Your task to perform on an android device: Open Chrome and go to settings Image 0: 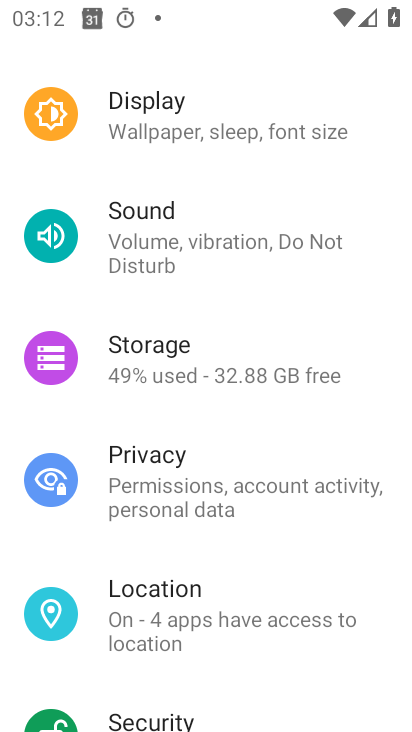
Step 0: press back button
Your task to perform on an android device: Open Chrome and go to settings Image 1: 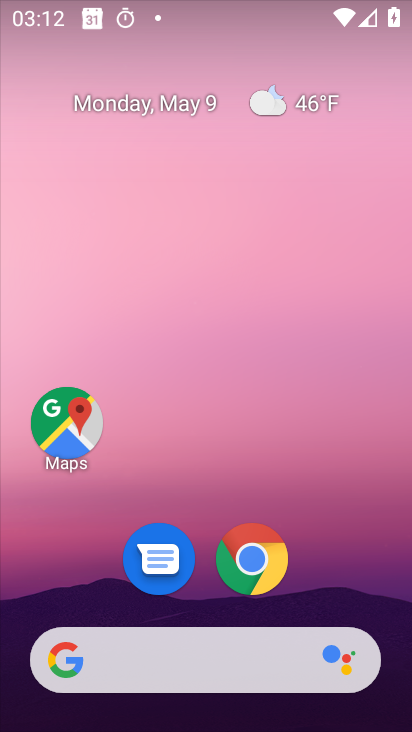
Step 1: click (254, 560)
Your task to perform on an android device: Open Chrome and go to settings Image 2: 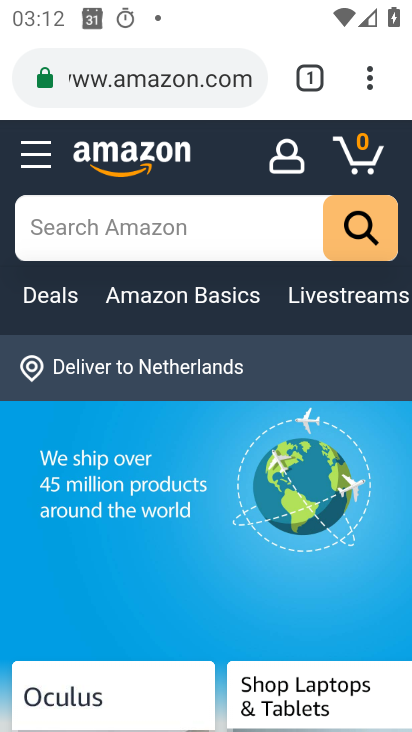
Step 2: click (368, 78)
Your task to perform on an android device: Open Chrome and go to settings Image 3: 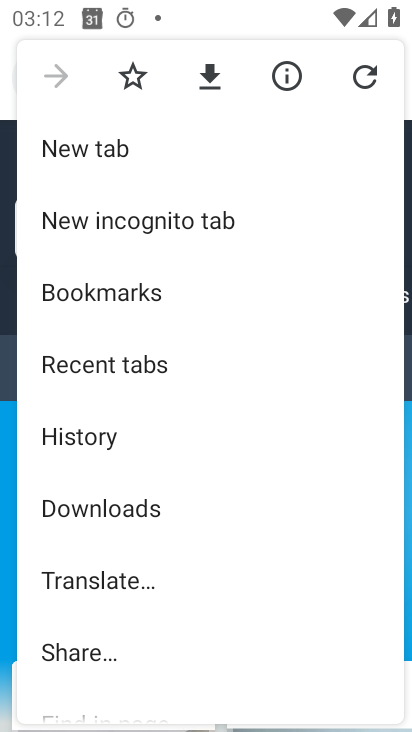
Step 3: drag from (84, 639) to (132, 516)
Your task to perform on an android device: Open Chrome and go to settings Image 4: 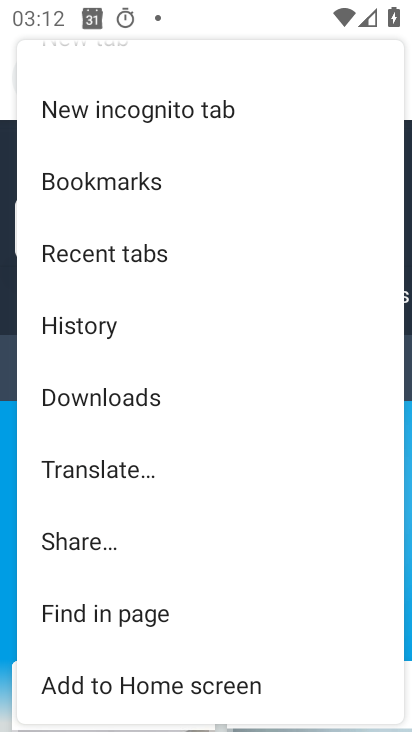
Step 4: drag from (126, 648) to (166, 532)
Your task to perform on an android device: Open Chrome and go to settings Image 5: 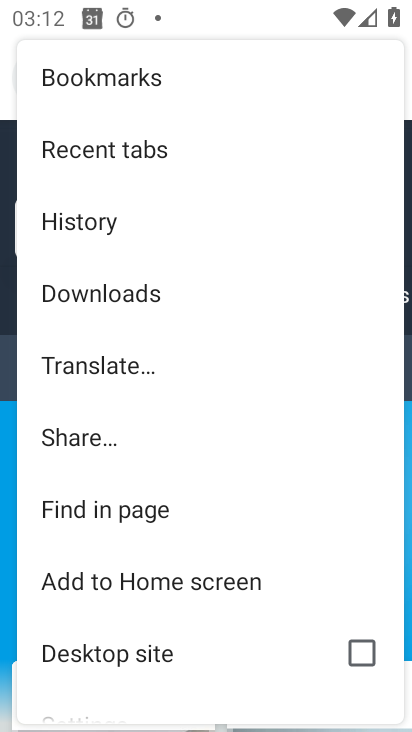
Step 5: drag from (132, 623) to (185, 484)
Your task to perform on an android device: Open Chrome and go to settings Image 6: 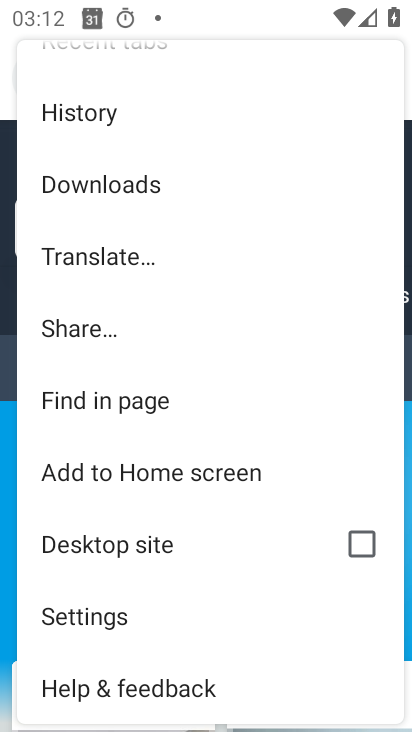
Step 6: click (81, 612)
Your task to perform on an android device: Open Chrome and go to settings Image 7: 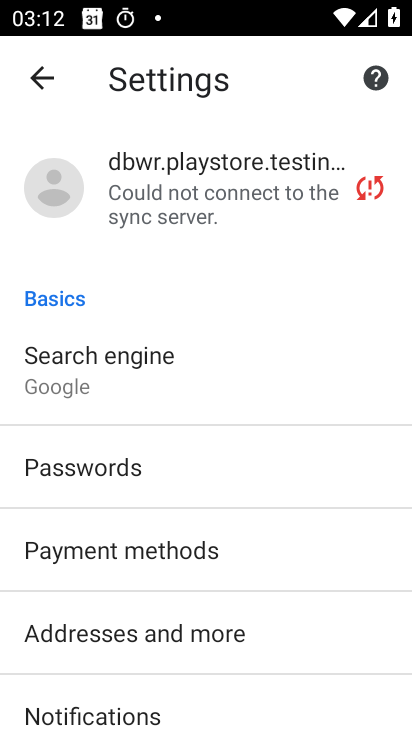
Step 7: task complete